Your task to perform on an android device: manage bookmarks in the chrome app Image 0: 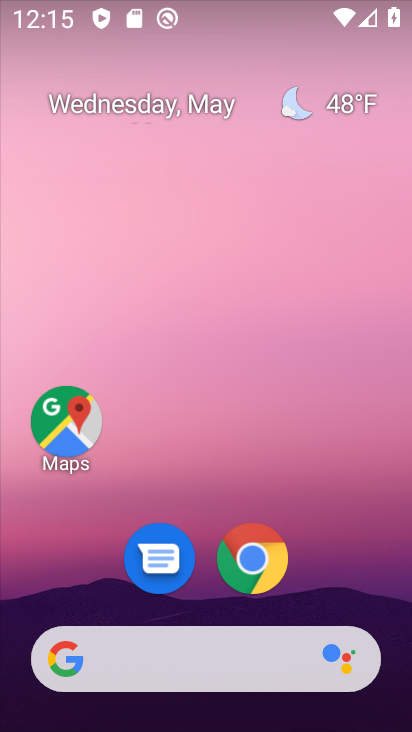
Step 0: drag from (369, 580) to (404, 181)
Your task to perform on an android device: manage bookmarks in the chrome app Image 1: 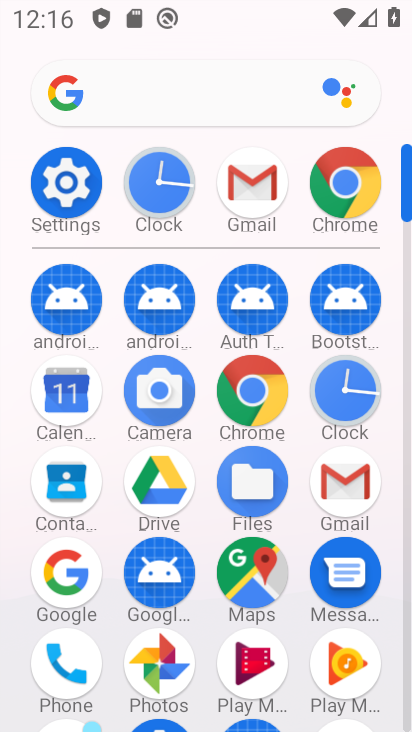
Step 1: click (250, 408)
Your task to perform on an android device: manage bookmarks in the chrome app Image 2: 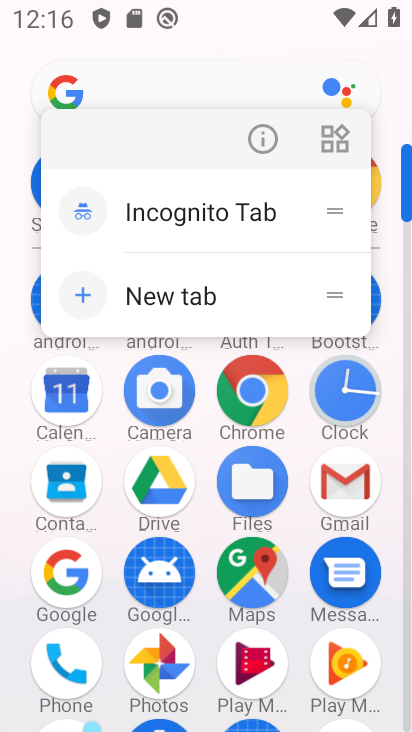
Step 2: click (250, 408)
Your task to perform on an android device: manage bookmarks in the chrome app Image 3: 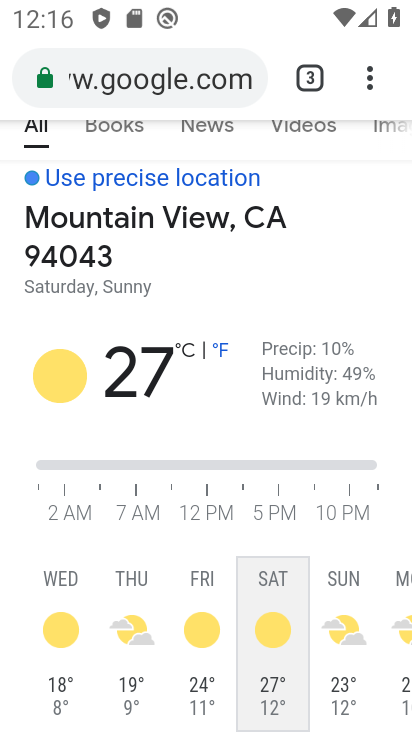
Step 3: task complete